Your task to perform on an android device: See recent photos Image 0: 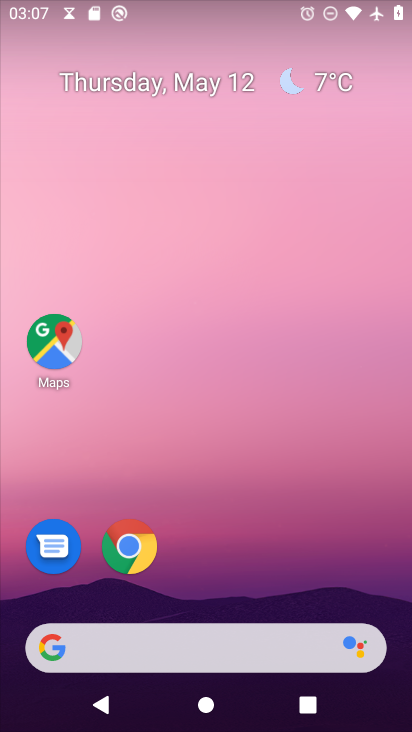
Step 0: press home button
Your task to perform on an android device: See recent photos Image 1: 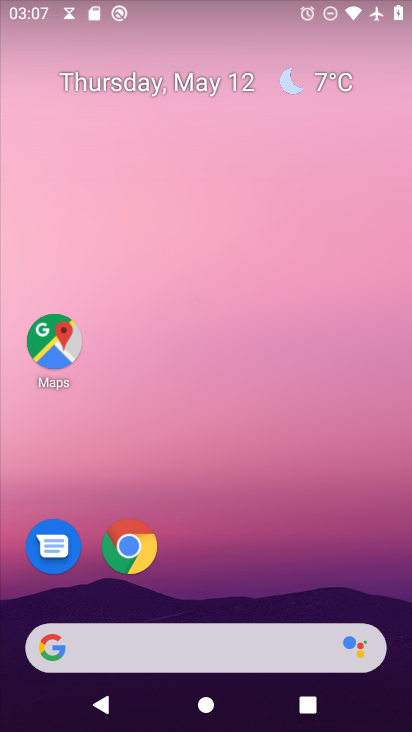
Step 1: drag from (177, 653) to (275, 235)
Your task to perform on an android device: See recent photos Image 2: 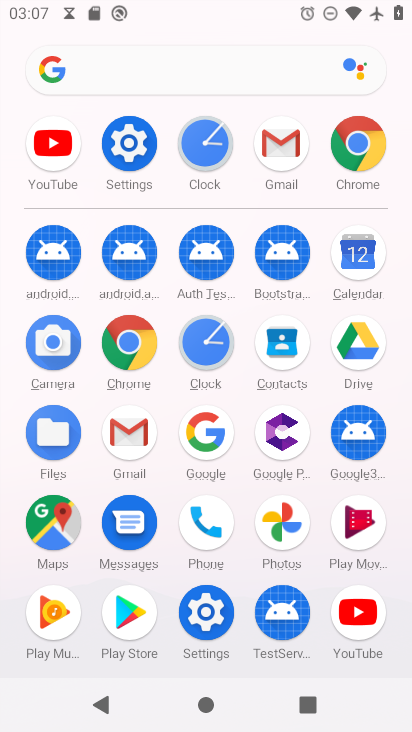
Step 2: click (283, 537)
Your task to perform on an android device: See recent photos Image 3: 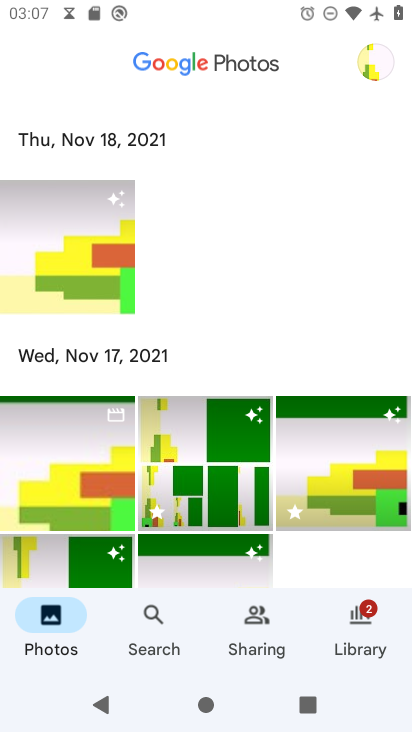
Step 3: click (151, 646)
Your task to perform on an android device: See recent photos Image 4: 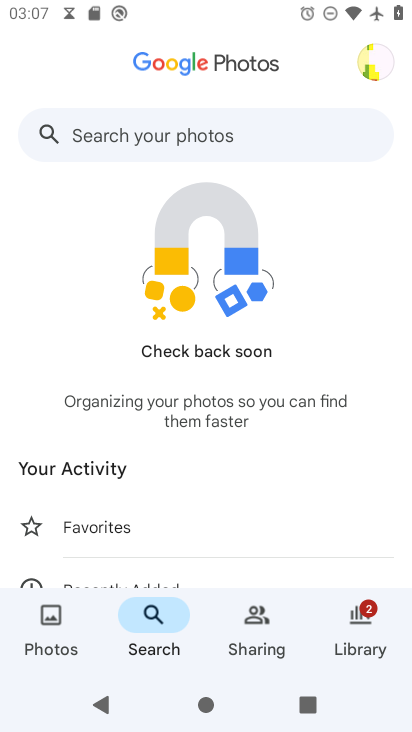
Step 4: drag from (211, 546) to (299, 322)
Your task to perform on an android device: See recent photos Image 5: 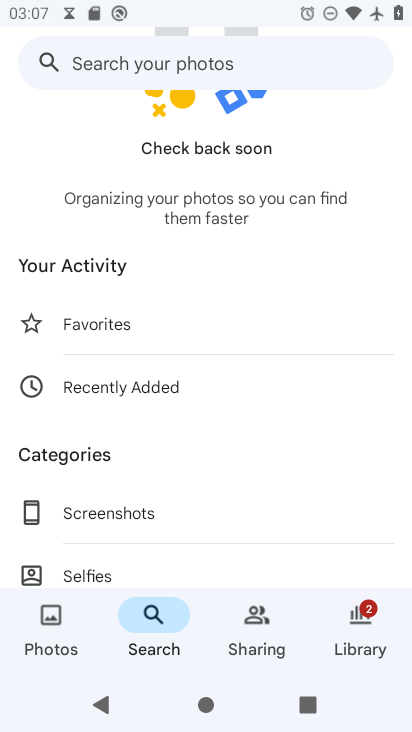
Step 5: click (144, 391)
Your task to perform on an android device: See recent photos Image 6: 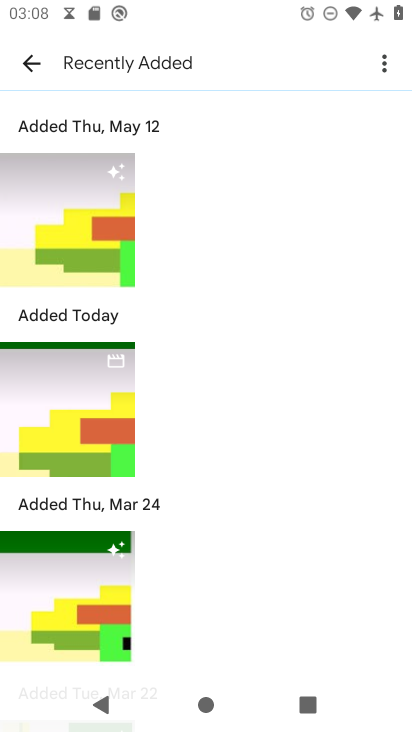
Step 6: task complete